Your task to perform on an android device: Open Google Image 0: 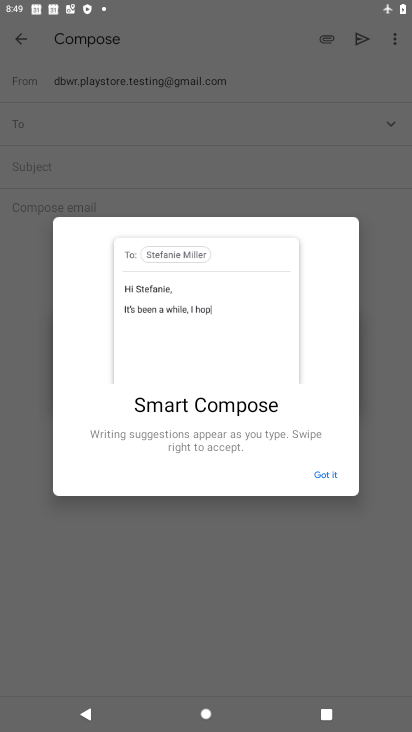
Step 0: press back button
Your task to perform on an android device: Open Google Image 1: 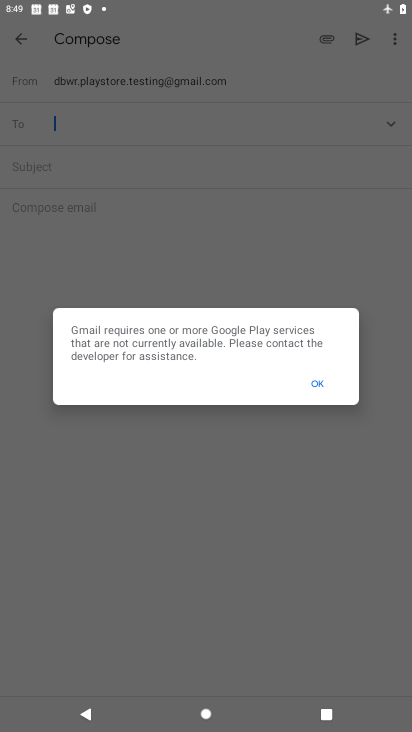
Step 1: press home button
Your task to perform on an android device: Open Google Image 2: 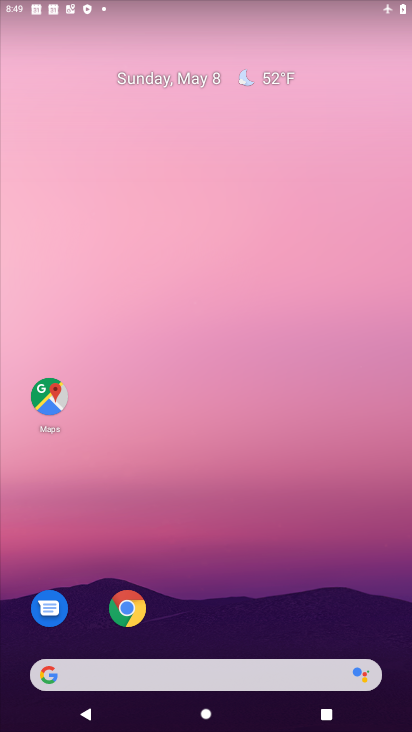
Step 2: drag from (196, 584) to (189, 37)
Your task to perform on an android device: Open Google Image 3: 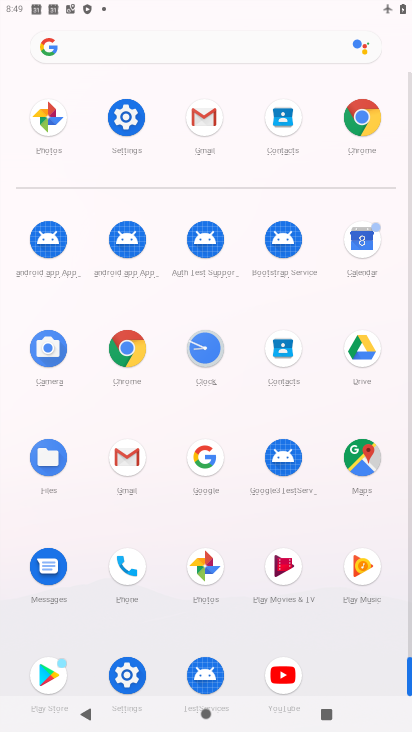
Step 3: click (362, 116)
Your task to perform on an android device: Open Google Image 4: 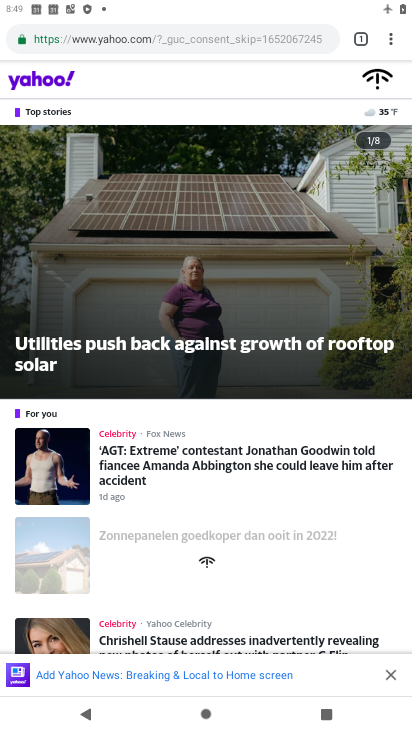
Step 4: click (148, 31)
Your task to perform on an android device: Open Google Image 5: 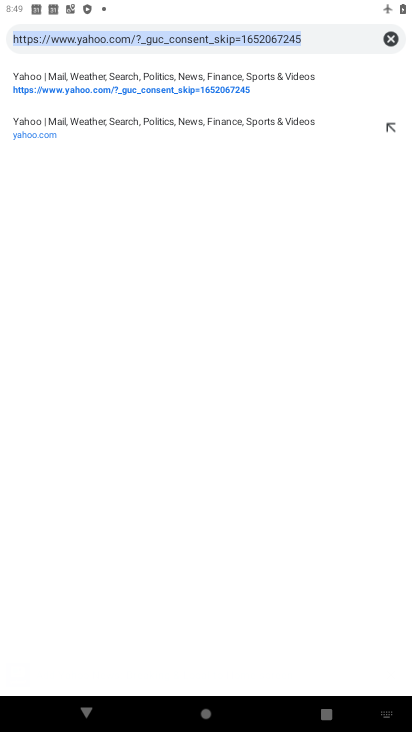
Step 5: click (392, 38)
Your task to perform on an android device: Open Google Image 6: 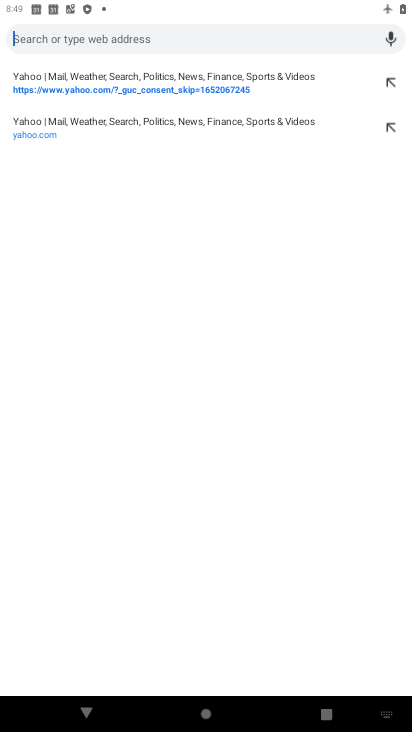
Step 6: type "Google"
Your task to perform on an android device: Open Google Image 7: 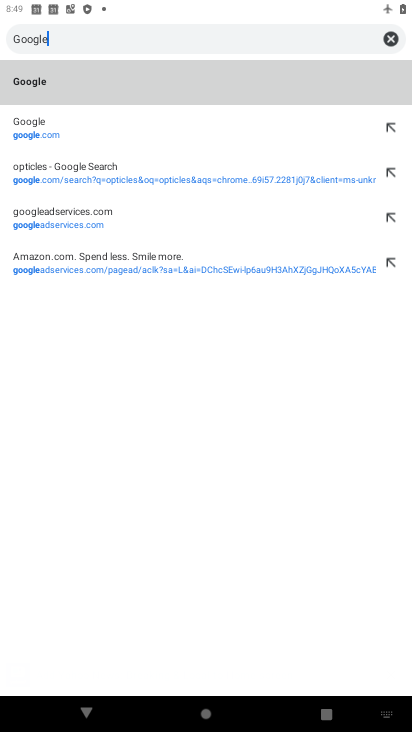
Step 7: type ""
Your task to perform on an android device: Open Google Image 8: 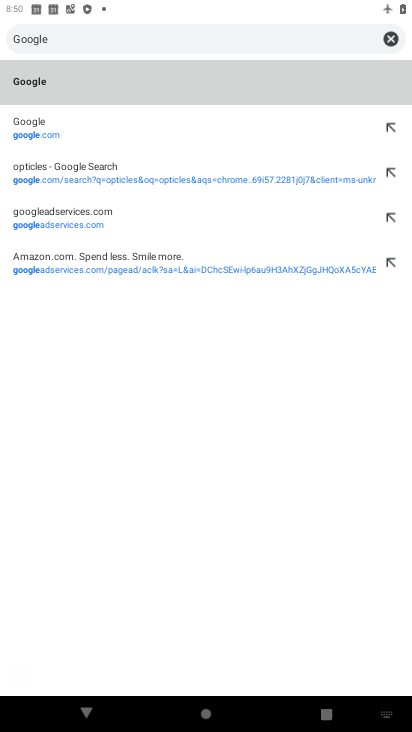
Step 8: click (69, 82)
Your task to perform on an android device: Open Google Image 9: 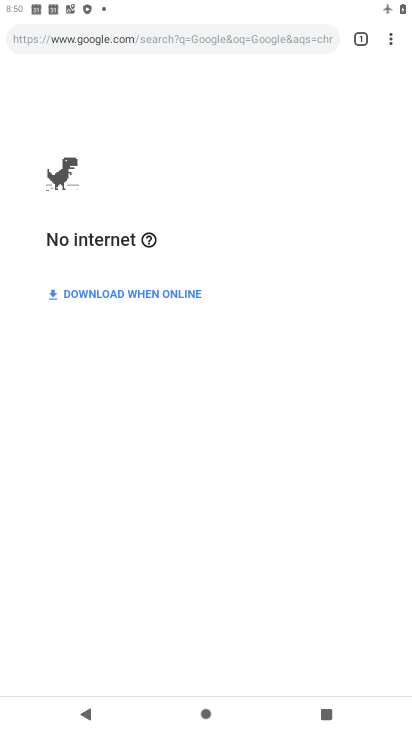
Step 9: task complete